Your task to perform on an android device: toggle javascript in the chrome app Image 0: 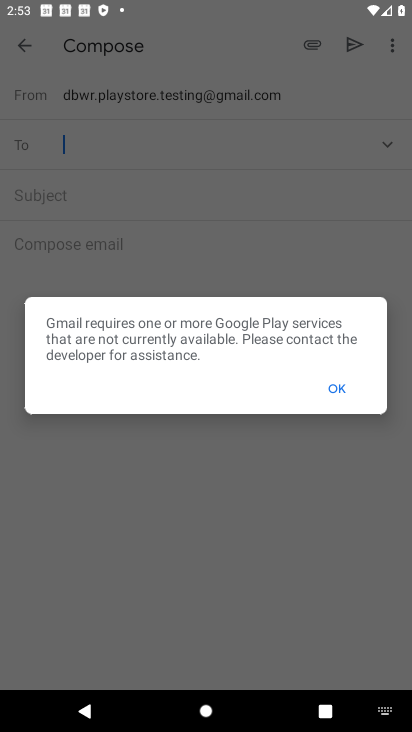
Step 0: press home button
Your task to perform on an android device: toggle javascript in the chrome app Image 1: 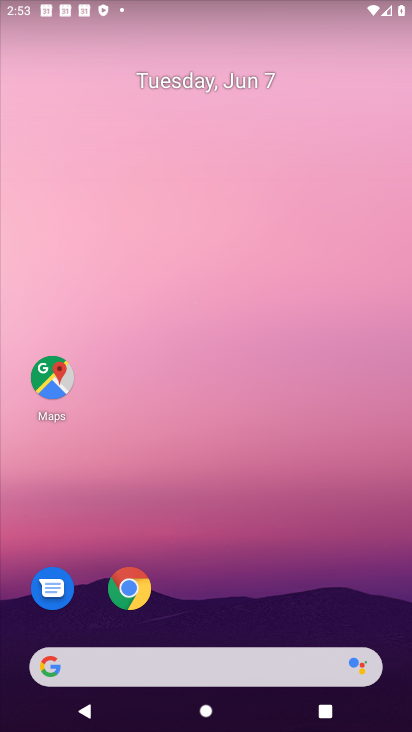
Step 1: click (136, 582)
Your task to perform on an android device: toggle javascript in the chrome app Image 2: 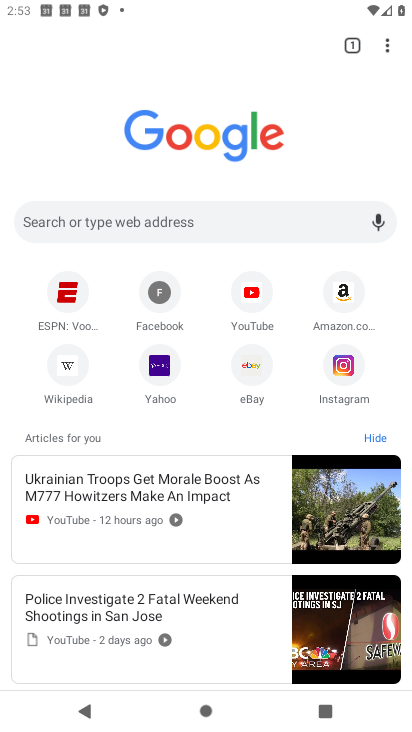
Step 2: click (390, 44)
Your task to perform on an android device: toggle javascript in the chrome app Image 3: 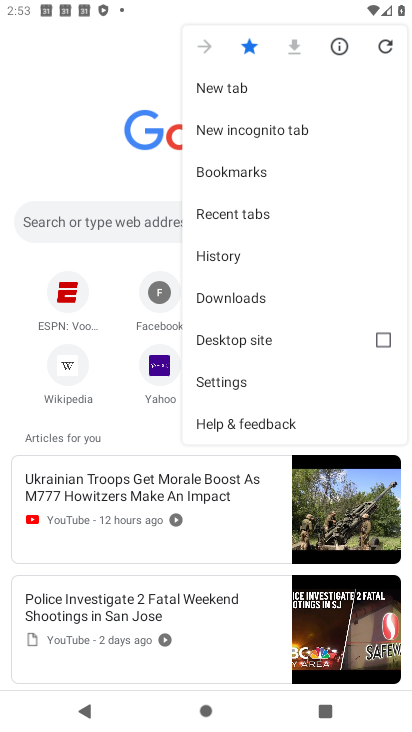
Step 3: click (220, 376)
Your task to perform on an android device: toggle javascript in the chrome app Image 4: 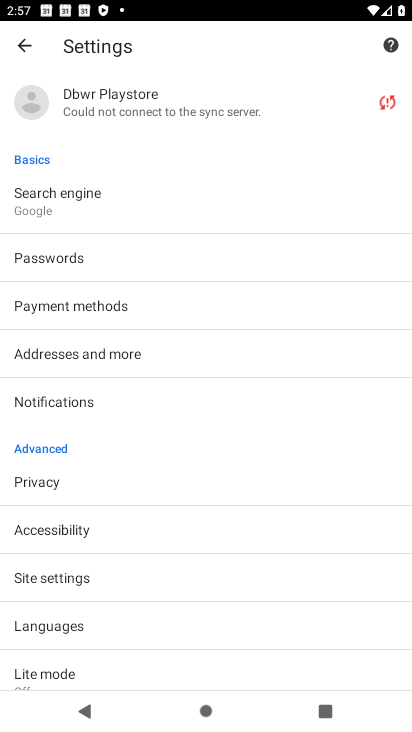
Step 4: task complete